Your task to perform on an android device: search for starred emails in the gmail app Image 0: 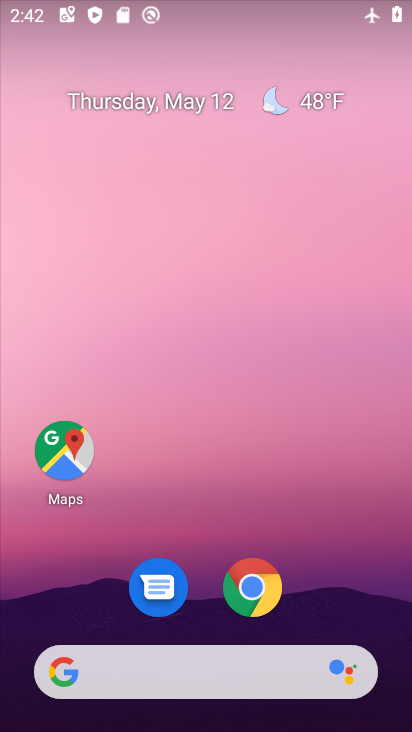
Step 0: drag from (215, 633) to (254, 275)
Your task to perform on an android device: search for starred emails in the gmail app Image 1: 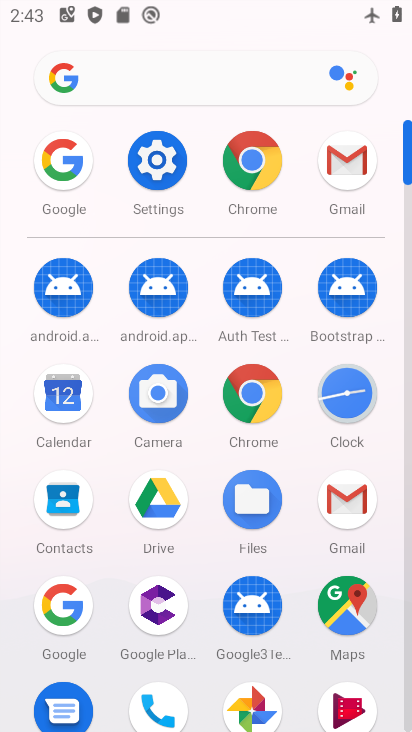
Step 1: drag from (172, 548) to (218, 326)
Your task to perform on an android device: search for starred emails in the gmail app Image 2: 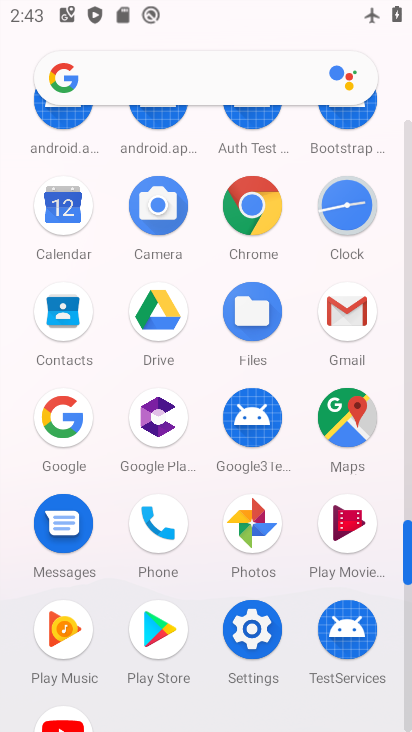
Step 2: click (361, 315)
Your task to perform on an android device: search for starred emails in the gmail app Image 3: 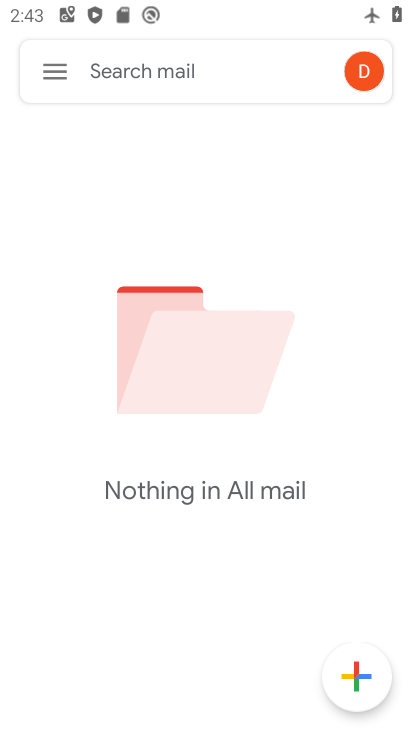
Step 3: click (54, 68)
Your task to perform on an android device: search for starred emails in the gmail app Image 4: 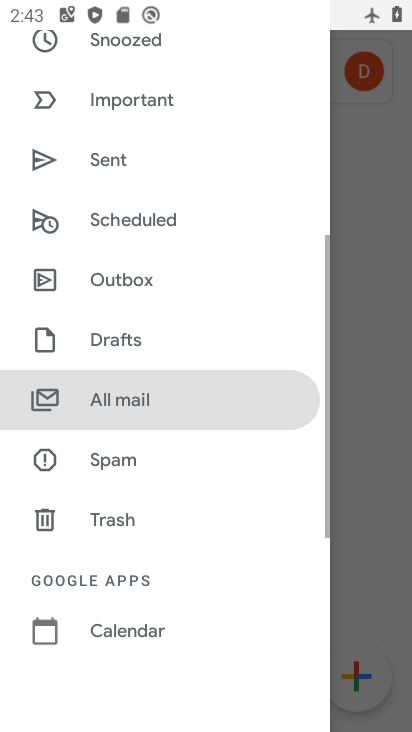
Step 4: drag from (128, 179) to (138, 524)
Your task to perform on an android device: search for starred emails in the gmail app Image 5: 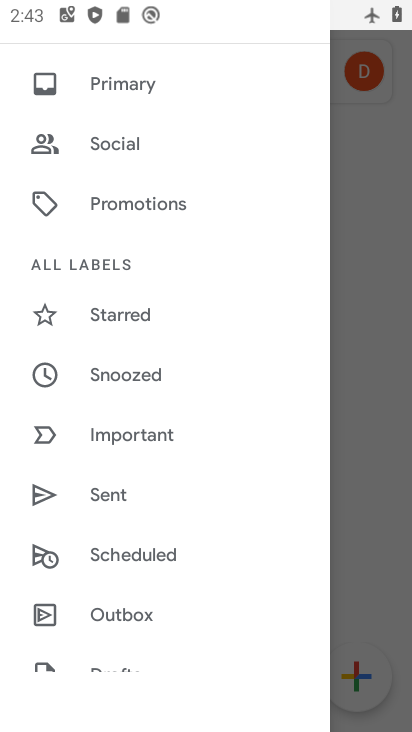
Step 5: click (132, 315)
Your task to perform on an android device: search for starred emails in the gmail app Image 6: 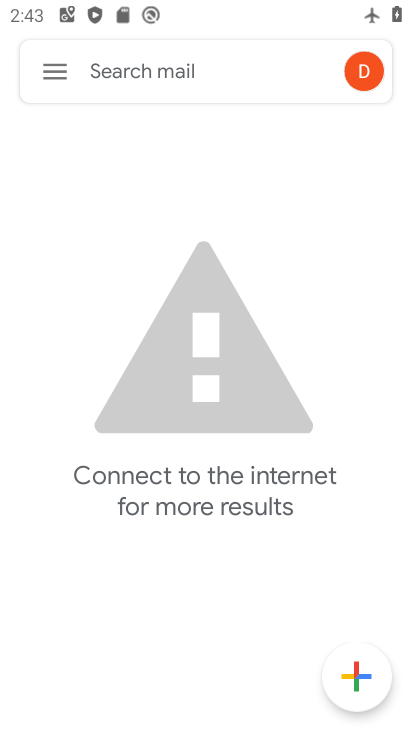
Step 6: task complete